Your task to perform on an android device: Open the Play Movies app and select the watchlist tab. Image 0: 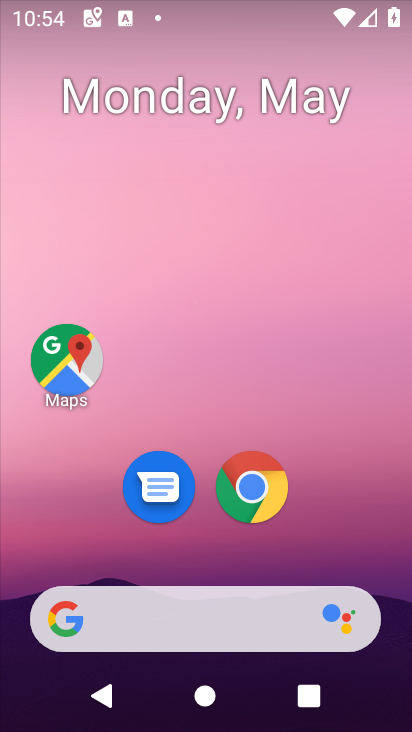
Step 0: drag from (310, 545) to (337, 128)
Your task to perform on an android device: Open the Play Movies app and select the watchlist tab. Image 1: 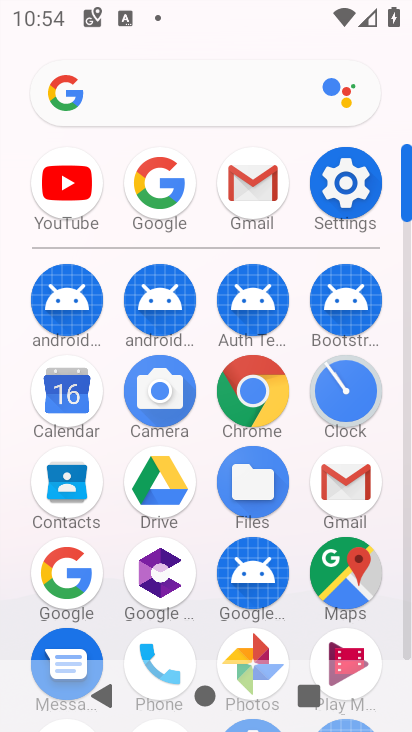
Step 1: drag from (285, 521) to (304, 252)
Your task to perform on an android device: Open the Play Movies app and select the watchlist tab. Image 2: 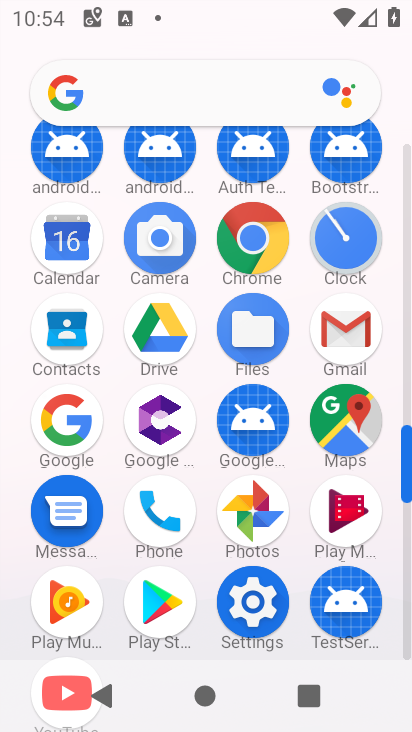
Step 2: click (325, 512)
Your task to perform on an android device: Open the Play Movies app and select the watchlist tab. Image 3: 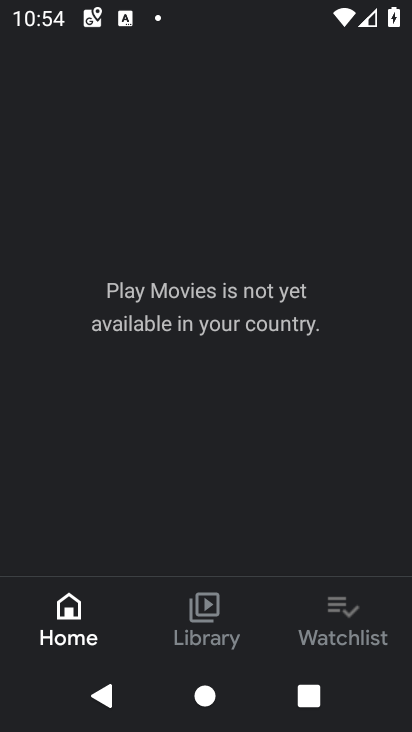
Step 3: click (368, 616)
Your task to perform on an android device: Open the Play Movies app and select the watchlist tab. Image 4: 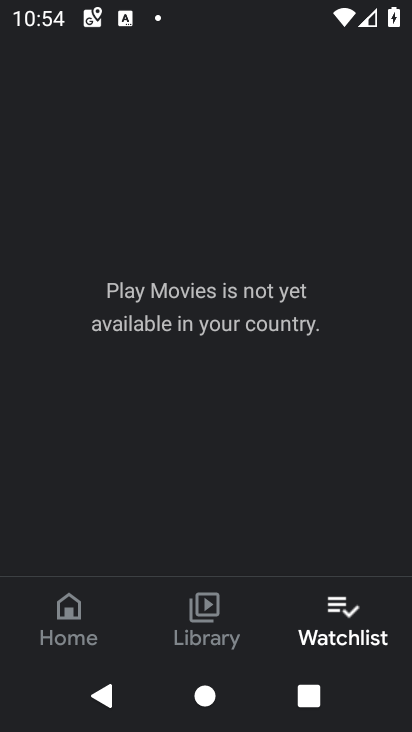
Step 4: task complete